Your task to perform on an android device: turn on improve location accuracy Image 0: 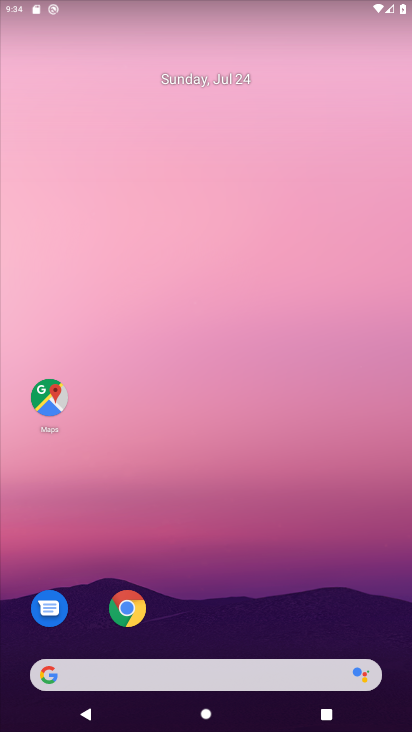
Step 0: drag from (314, 605) to (349, 3)
Your task to perform on an android device: turn on improve location accuracy Image 1: 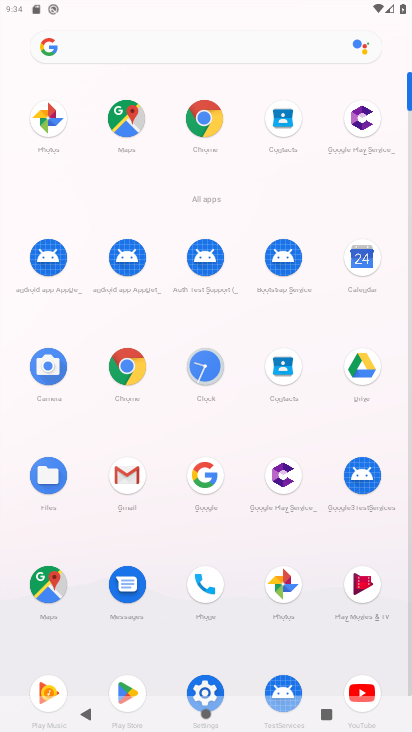
Step 1: click (201, 692)
Your task to perform on an android device: turn on improve location accuracy Image 2: 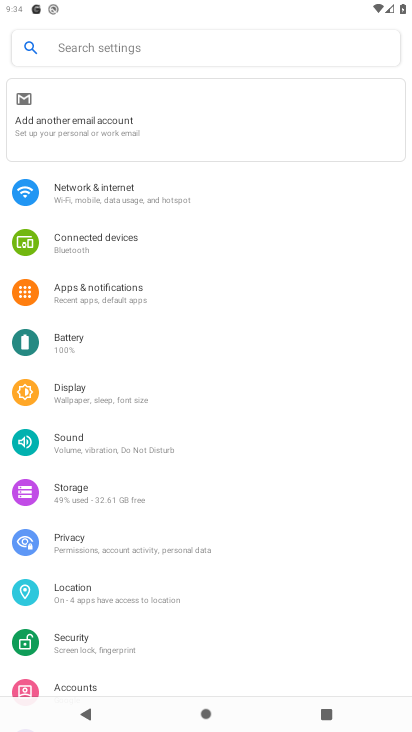
Step 2: click (172, 603)
Your task to perform on an android device: turn on improve location accuracy Image 3: 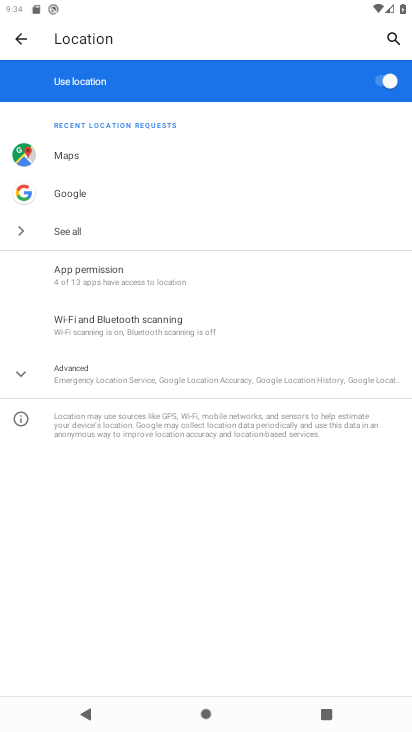
Step 3: click (125, 369)
Your task to perform on an android device: turn on improve location accuracy Image 4: 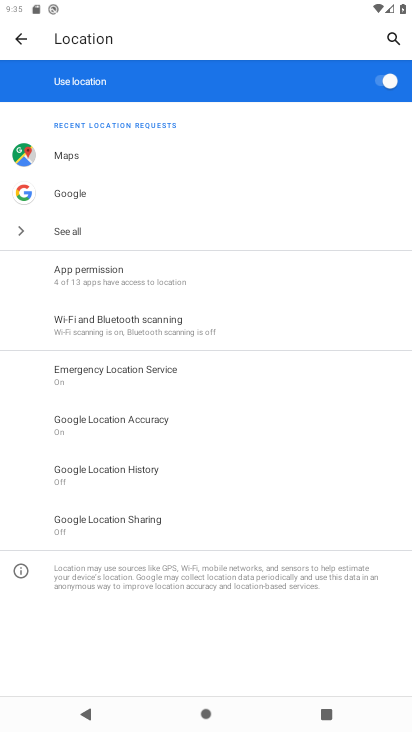
Step 4: click (98, 414)
Your task to perform on an android device: turn on improve location accuracy Image 5: 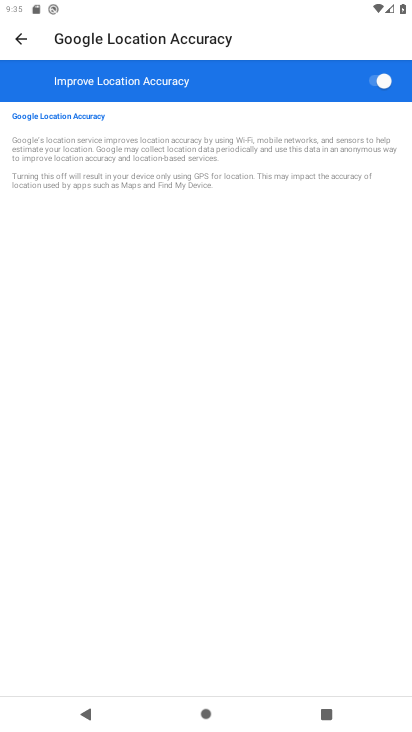
Step 5: task complete